Your task to perform on an android device: Open settings Image 0: 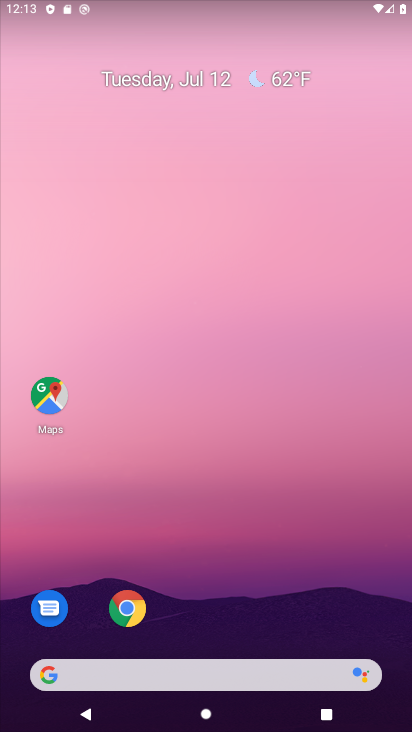
Step 0: drag from (286, 625) to (229, 16)
Your task to perform on an android device: Open settings Image 1: 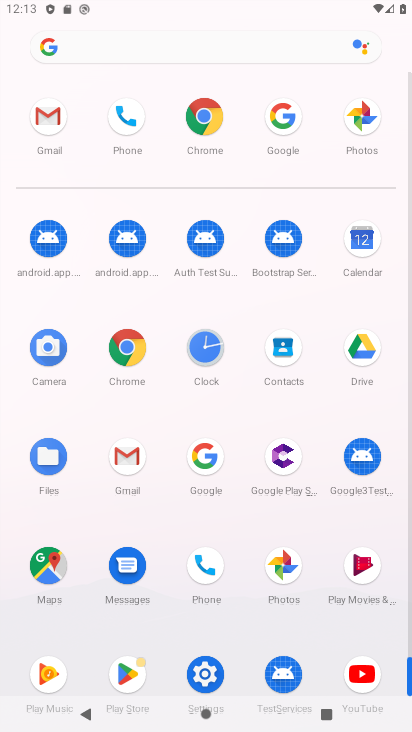
Step 1: click (194, 695)
Your task to perform on an android device: Open settings Image 2: 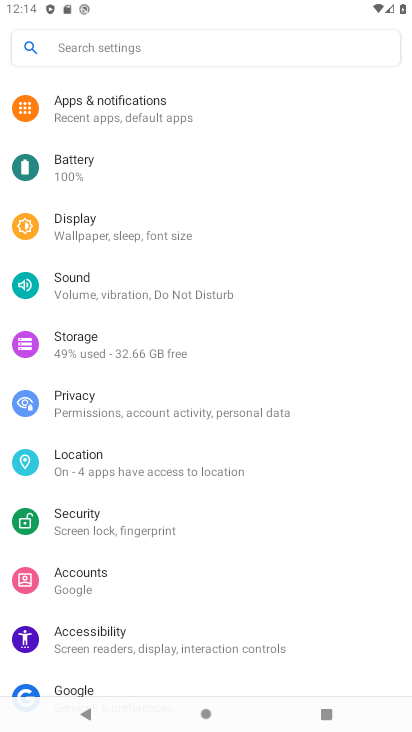
Step 2: task complete